Your task to perform on an android device: Clear all items from cart on newegg.com. Add "amazon basics triple a" to the cart on newegg.com, then select checkout. Image 0: 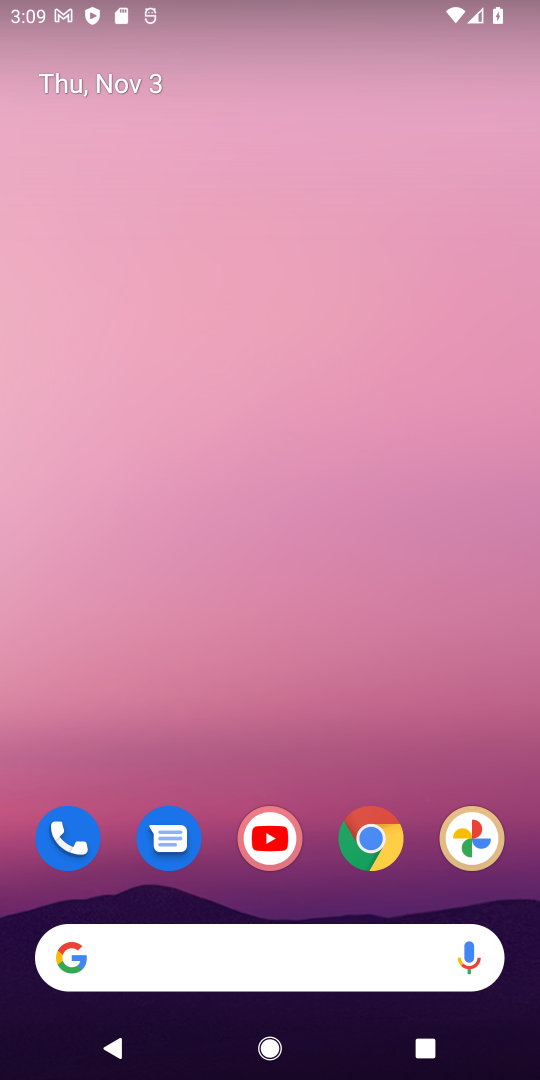
Step 0: drag from (307, 848) to (321, 103)
Your task to perform on an android device: Clear all items from cart on newegg.com. Add "amazon basics triple a" to the cart on newegg.com, then select checkout. Image 1: 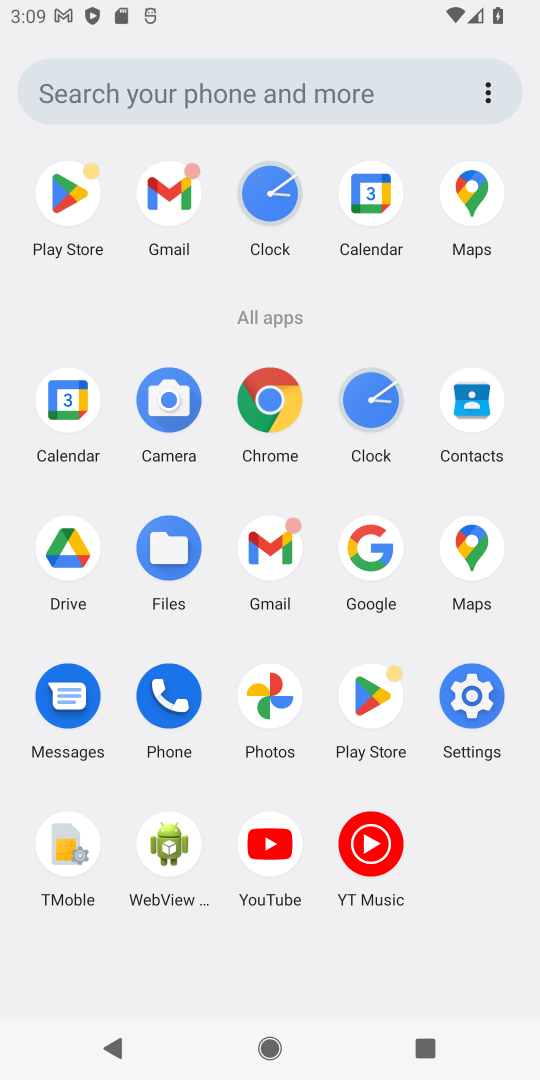
Step 1: click (275, 406)
Your task to perform on an android device: Clear all items from cart on newegg.com. Add "amazon basics triple a" to the cart on newegg.com, then select checkout. Image 2: 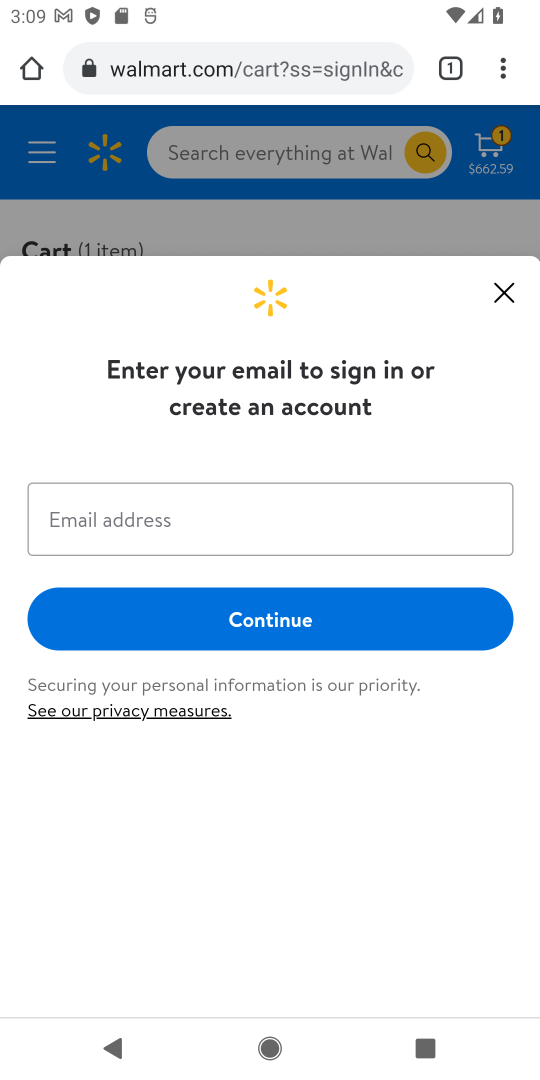
Step 2: click (353, 77)
Your task to perform on an android device: Clear all items from cart on newegg.com. Add "amazon basics triple a" to the cart on newegg.com, then select checkout. Image 3: 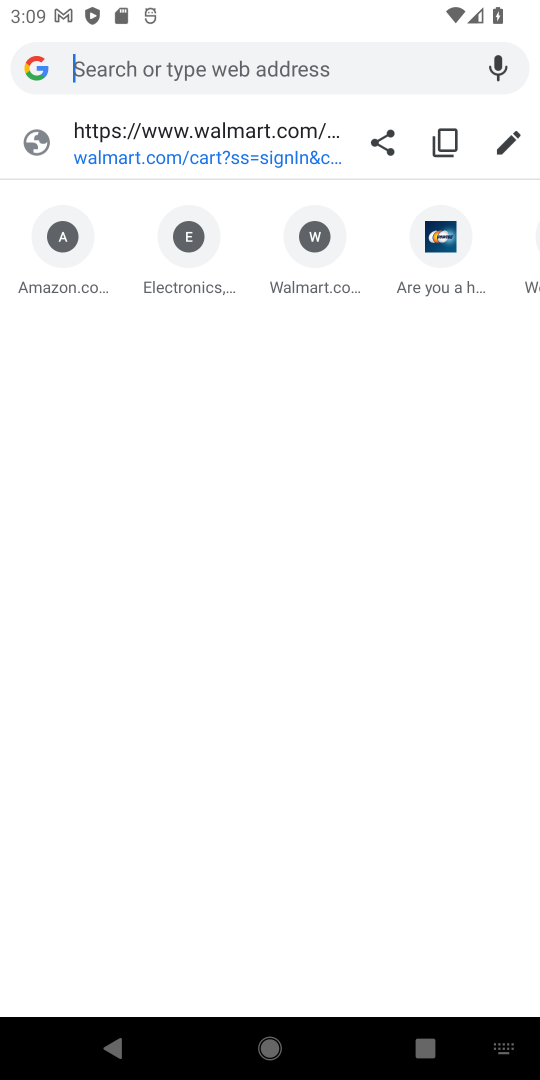
Step 3: type "newegg.com"
Your task to perform on an android device: Clear all items from cart on newegg.com. Add "amazon basics triple a" to the cart on newegg.com, then select checkout. Image 4: 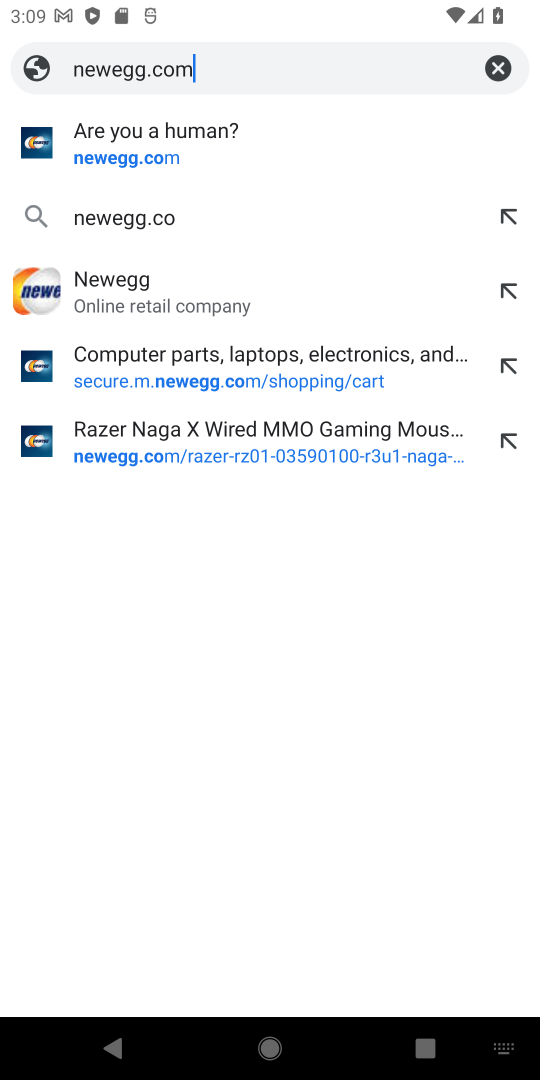
Step 4: press enter
Your task to perform on an android device: Clear all items from cart on newegg.com. Add "amazon basics triple a" to the cart on newegg.com, then select checkout. Image 5: 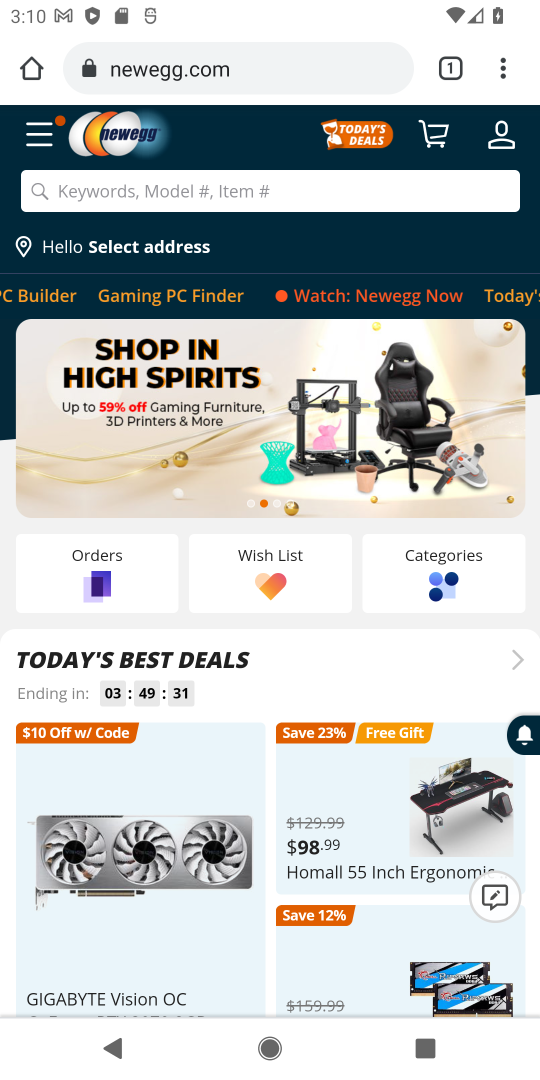
Step 5: click (446, 133)
Your task to perform on an android device: Clear all items from cart on newegg.com. Add "amazon basics triple a" to the cart on newegg.com, then select checkout. Image 6: 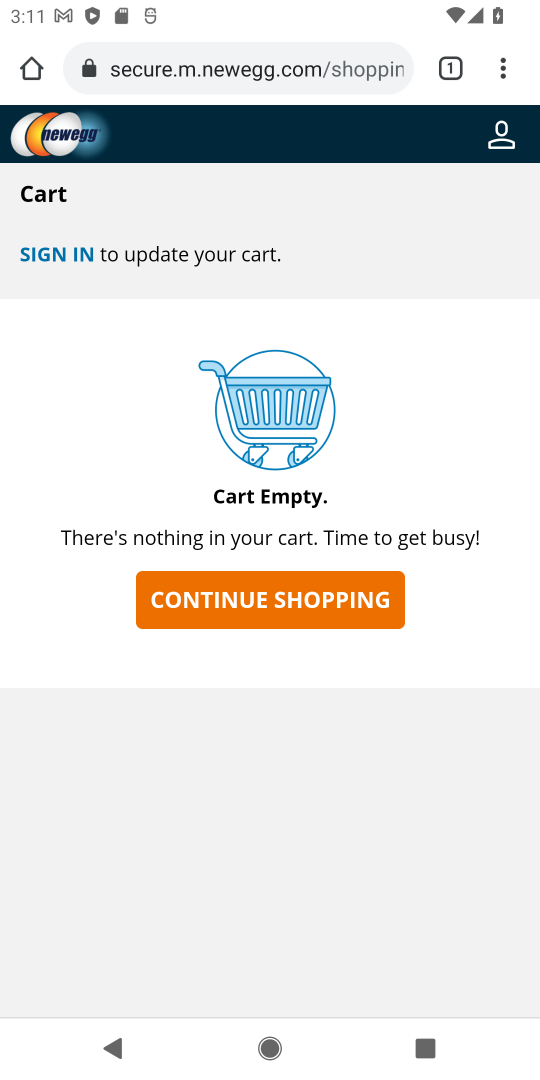
Step 6: click (292, 600)
Your task to perform on an android device: Clear all items from cart on newegg.com. Add "amazon basics triple a" to the cart on newegg.com, then select checkout. Image 7: 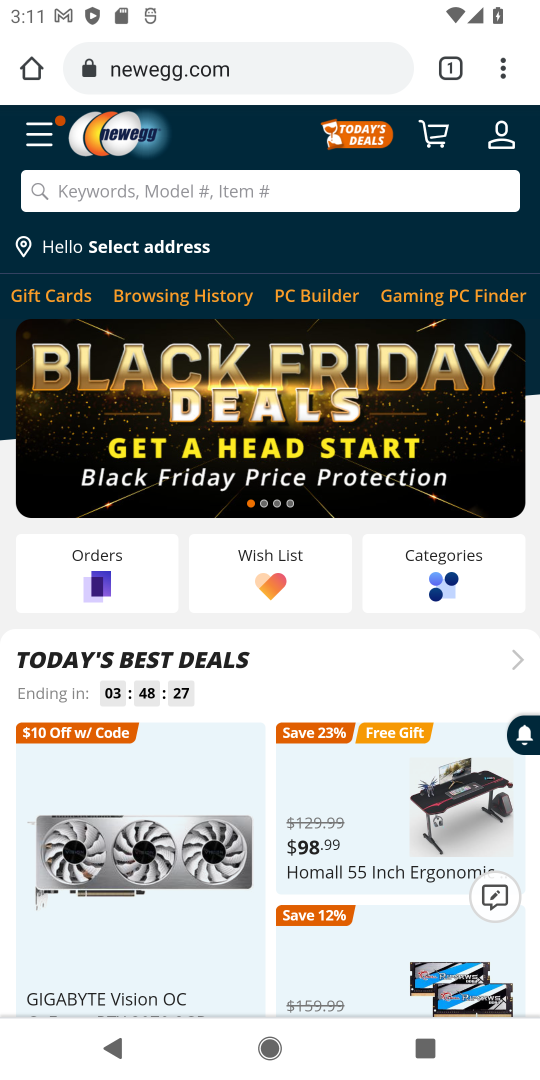
Step 7: click (68, 180)
Your task to perform on an android device: Clear all items from cart on newegg.com. Add "amazon basics triple a" to the cart on newegg.com, then select checkout. Image 8: 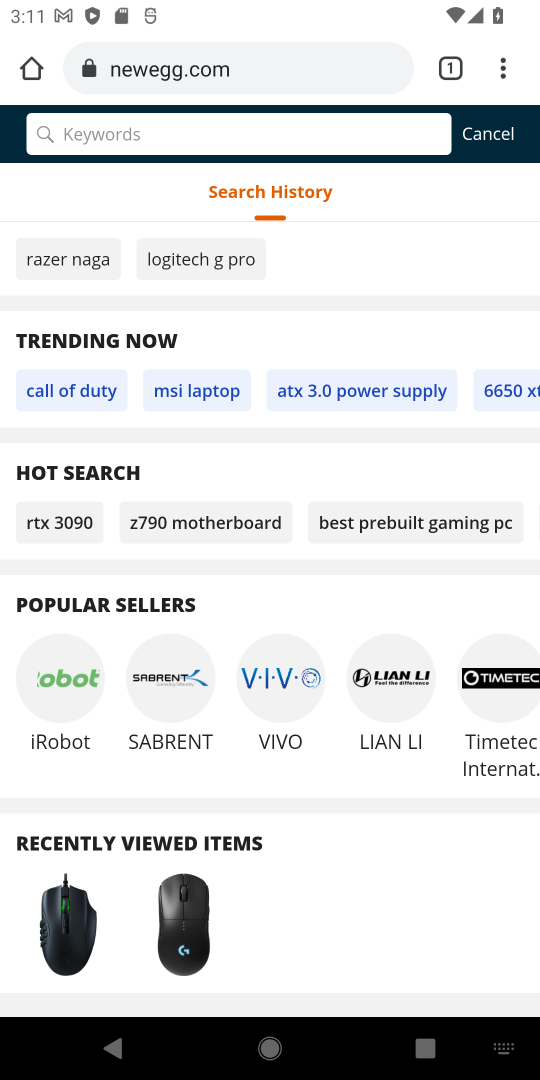
Step 8: type "amazon basics triple a"
Your task to perform on an android device: Clear all items from cart on newegg.com. Add "amazon basics triple a" to the cart on newegg.com, then select checkout. Image 9: 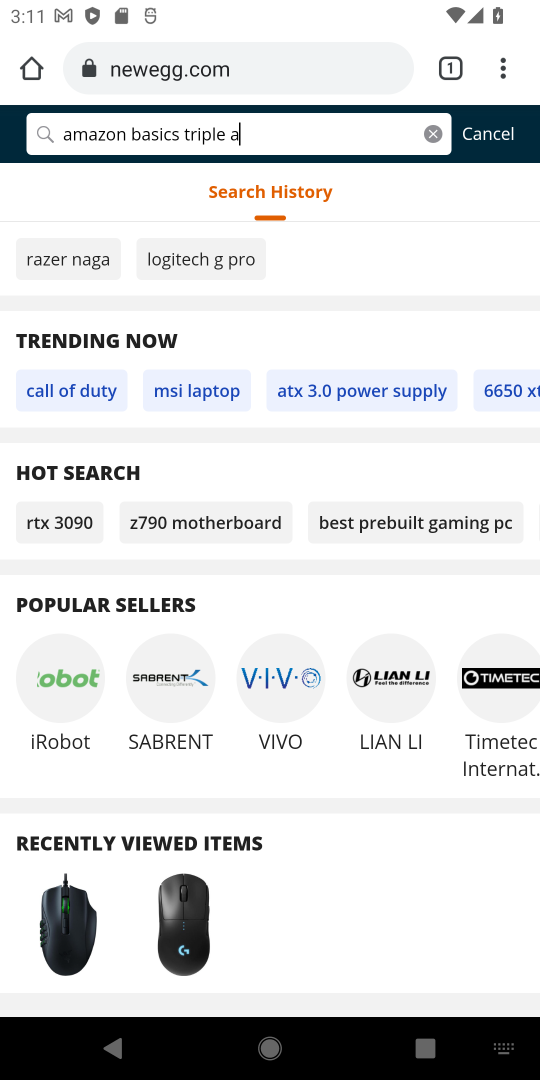
Step 9: press enter
Your task to perform on an android device: Clear all items from cart on newegg.com. Add "amazon basics triple a" to the cart on newegg.com, then select checkout. Image 10: 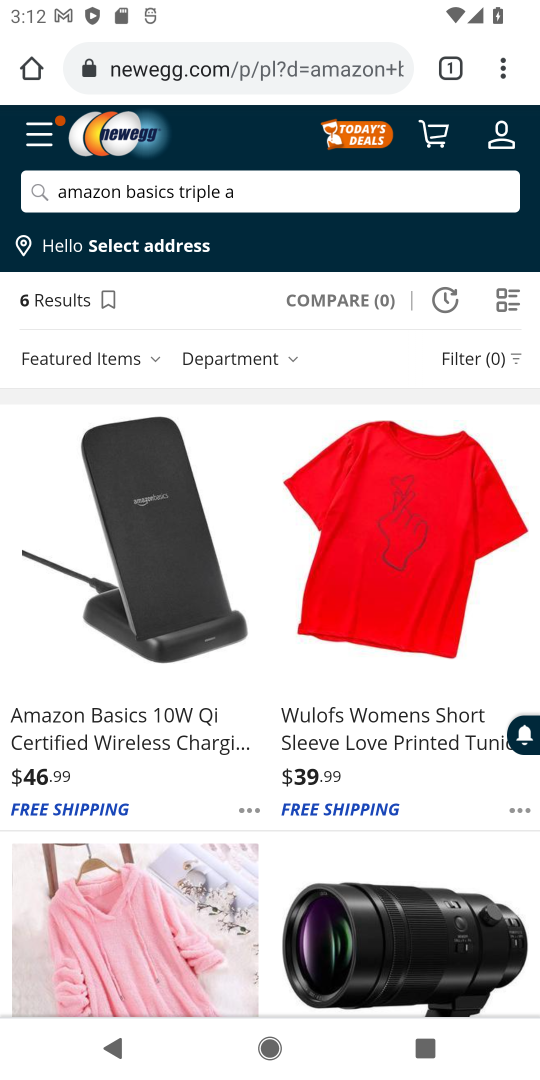
Step 10: task complete